Your task to perform on an android device: change your default location settings in chrome Image 0: 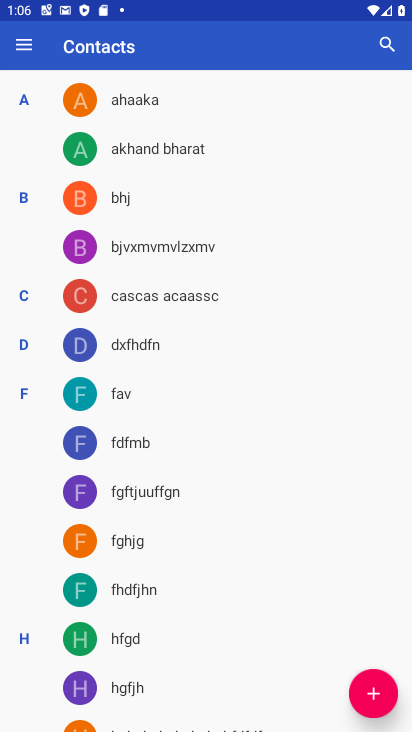
Step 0: press home button
Your task to perform on an android device: change your default location settings in chrome Image 1: 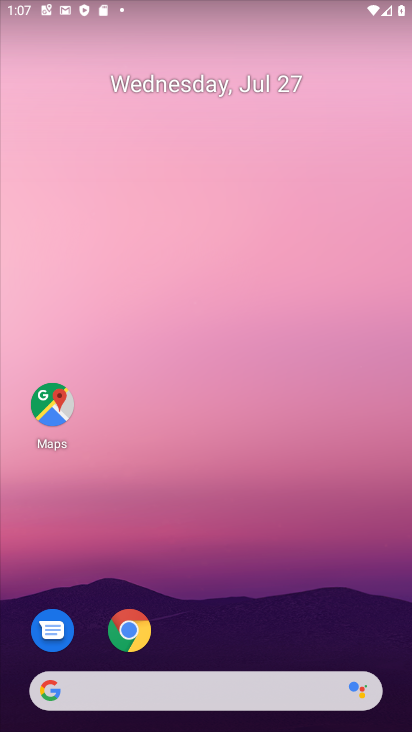
Step 1: click (126, 631)
Your task to perform on an android device: change your default location settings in chrome Image 2: 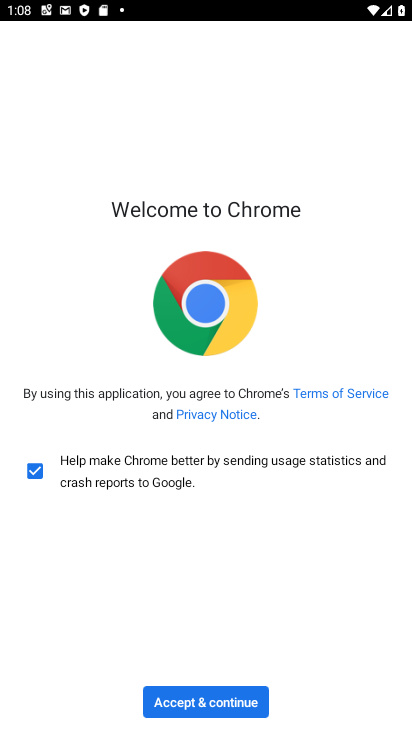
Step 2: click (205, 702)
Your task to perform on an android device: change your default location settings in chrome Image 3: 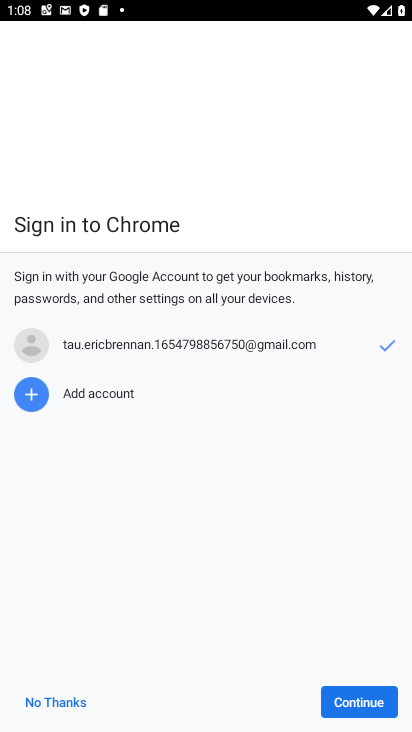
Step 3: click (324, 697)
Your task to perform on an android device: change your default location settings in chrome Image 4: 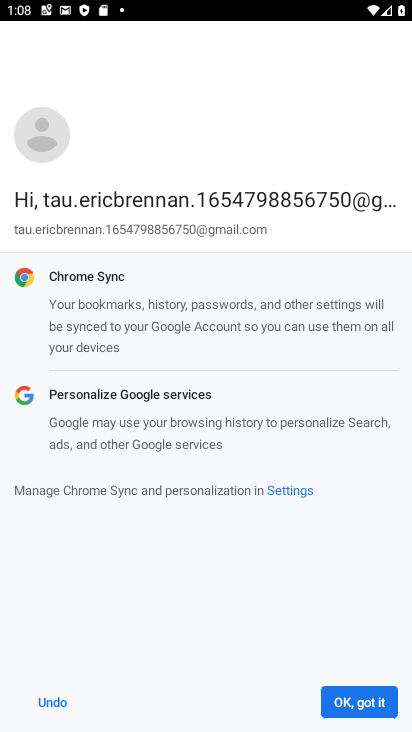
Step 4: click (330, 698)
Your task to perform on an android device: change your default location settings in chrome Image 5: 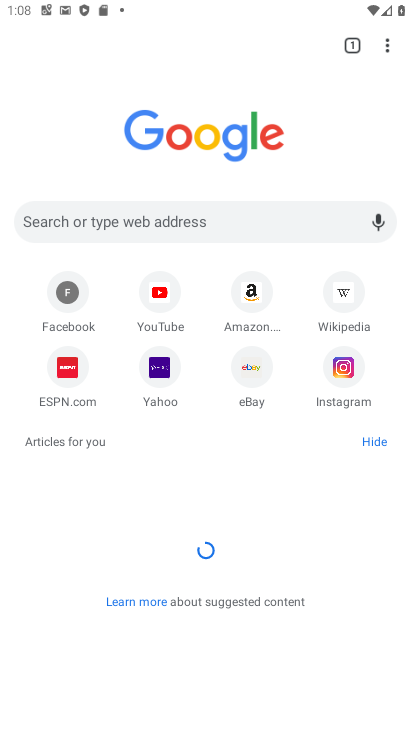
Step 5: click (185, 215)
Your task to perform on an android device: change your default location settings in chrome Image 6: 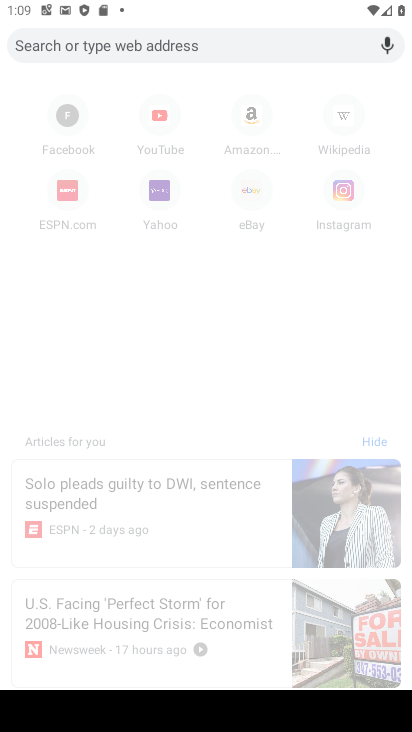
Step 6: press home button
Your task to perform on an android device: change your default location settings in chrome Image 7: 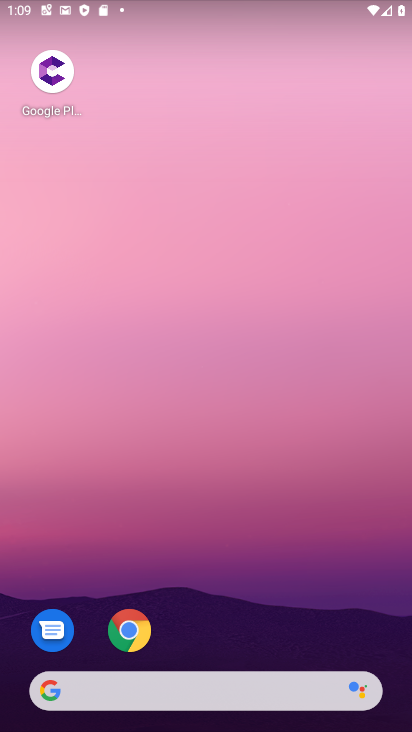
Step 7: click (137, 630)
Your task to perform on an android device: change your default location settings in chrome Image 8: 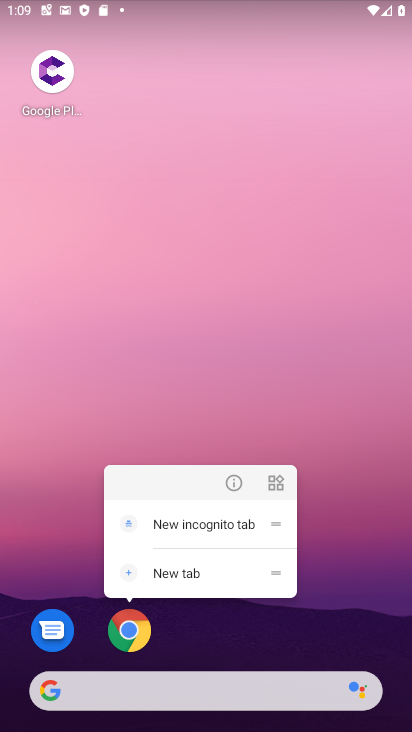
Step 8: click (122, 630)
Your task to perform on an android device: change your default location settings in chrome Image 9: 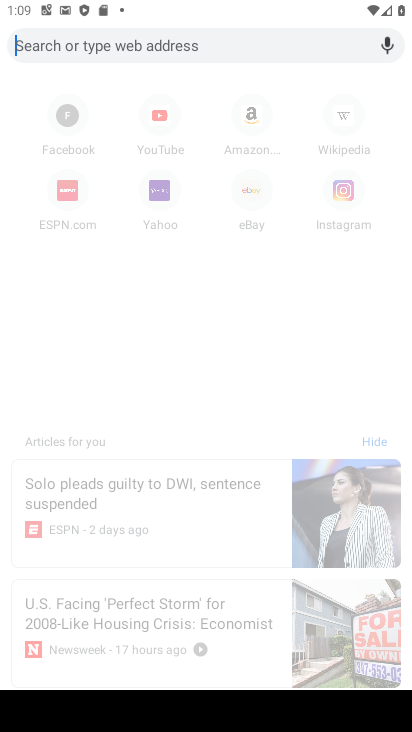
Step 9: task complete